Your task to perform on an android device: change notification settings in the gmail app Image 0: 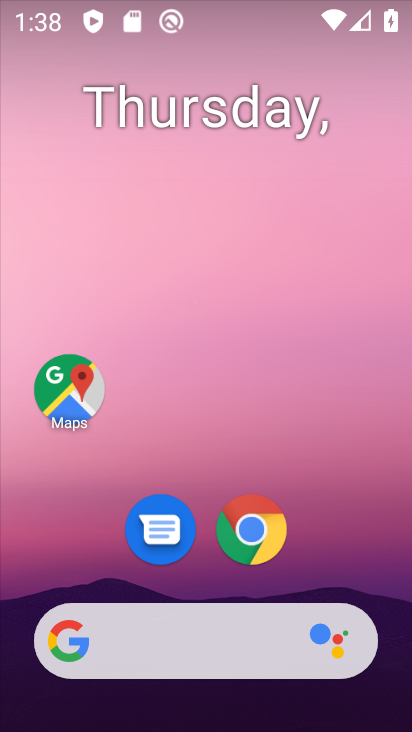
Step 0: drag from (200, 723) to (213, 126)
Your task to perform on an android device: change notification settings in the gmail app Image 1: 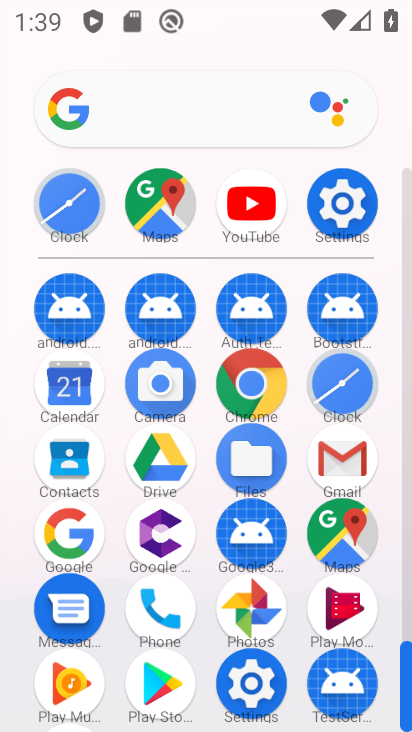
Step 1: click (338, 457)
Your task to perform on an android device: change notification settings in the gmail app Image 2: 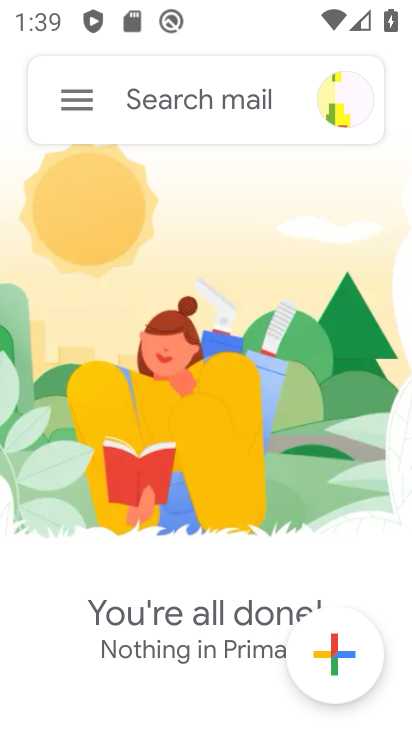
Step 2: click (82, 95)
Your task to perform on an android device: change notification settings in the gmail app Image 3: 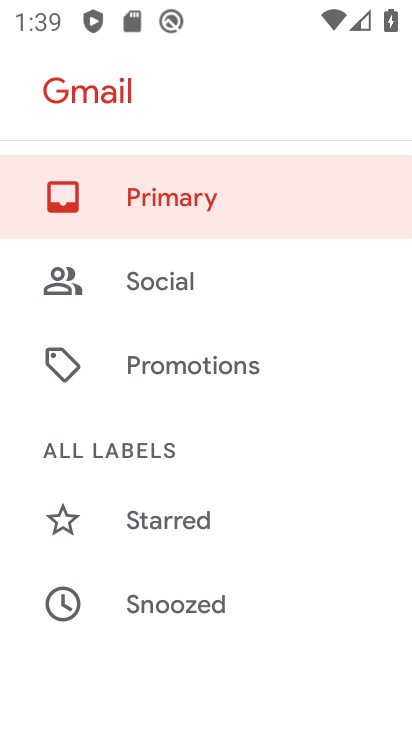
Step 3: drag from (175, 649) to (186, 194)
Your task to perform on an android device: change notification settings in the gmail app Image 4: 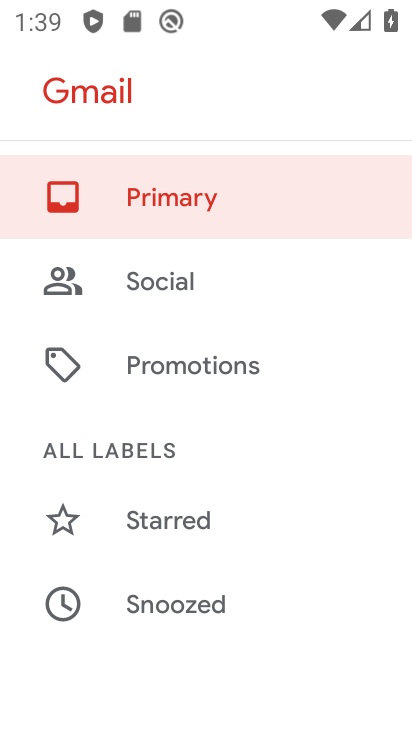
Step 4: drag from (182, 537) to (170, 228)
Your task to perform on an android device: change notification settings in the gmail app Image 5: 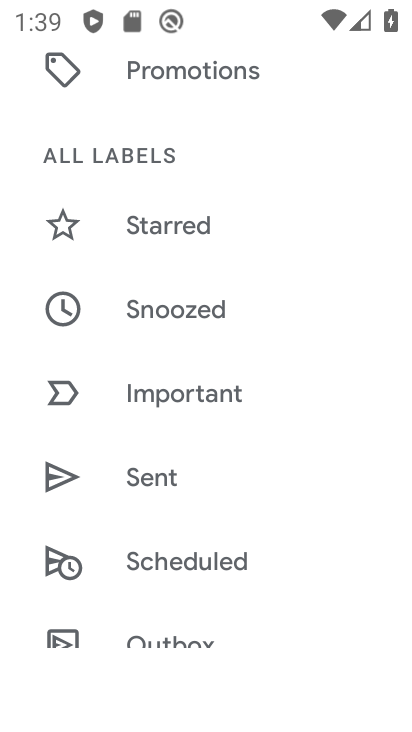
Step 5: drag from (187, 554) to (184, 218)
Your task to perform on an android device: change notification settings in the gmail app Image 6: 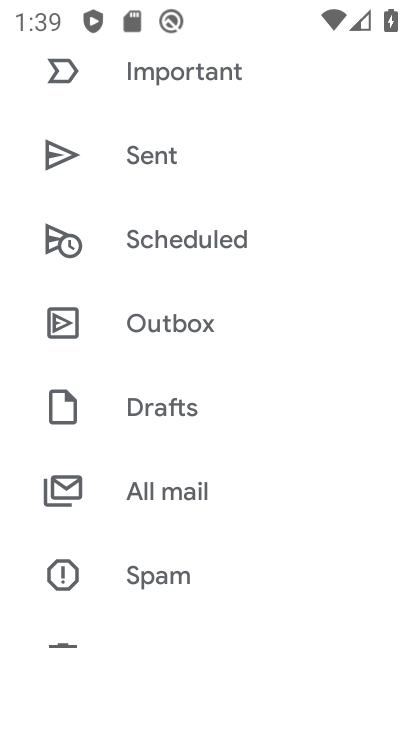
Step 6: drag from (197, 617) to (186, 192)
Your task to perform on an android device: change notification settings in the gmail app Image 7: 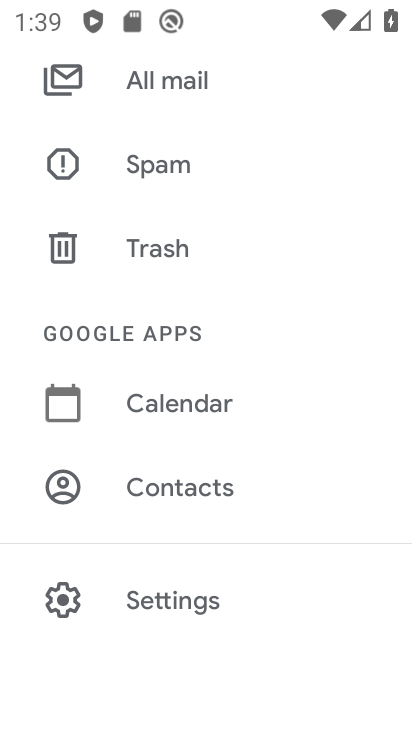
Step 7: click (192, 601)
Your task to perform on an android device: change notification settings in the gmail app Image 8: 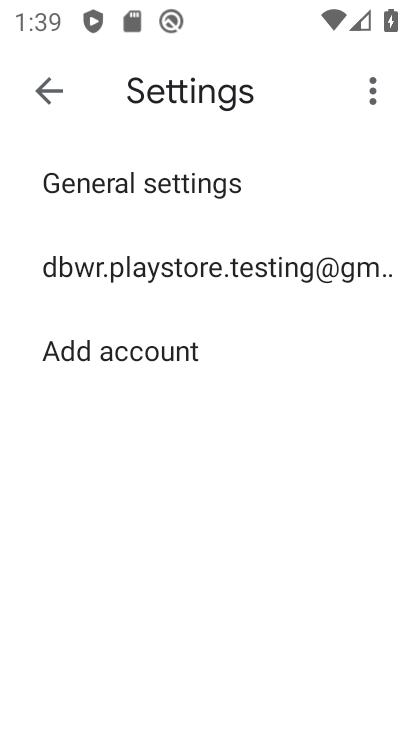
Step 8: click (261, 272)
Your task to perform on an android device: change notification settings in the gmail app Image 9: 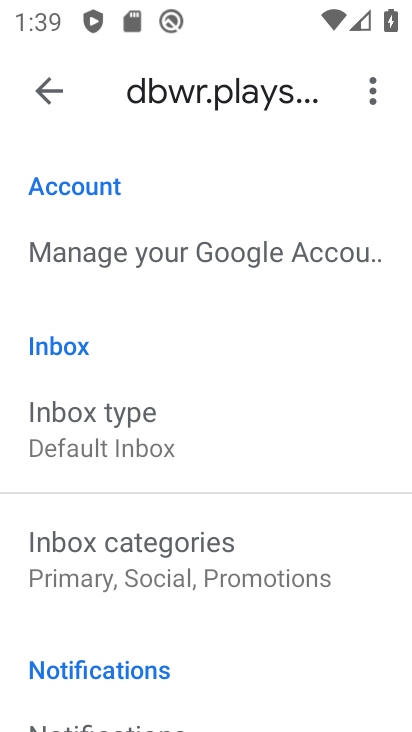
Step 9: drag from (137, 647) to (137, 340)
Your task to perform on an android device: change notification settings in the gmail app Image 10: 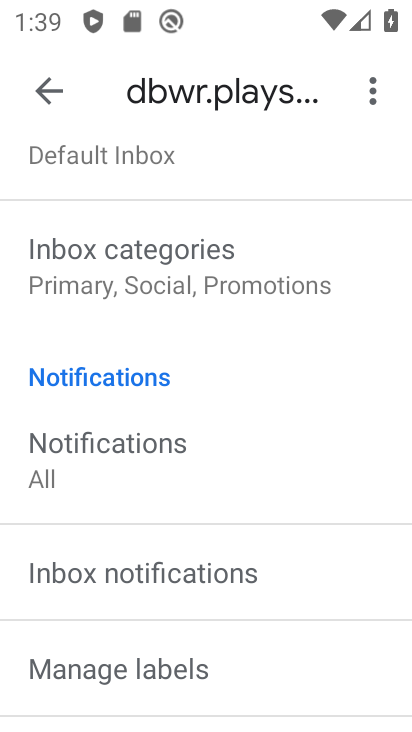
Step 10: click (144, 447)
Your task to perform on an android device: change notification settings in the gmail app Image 11: 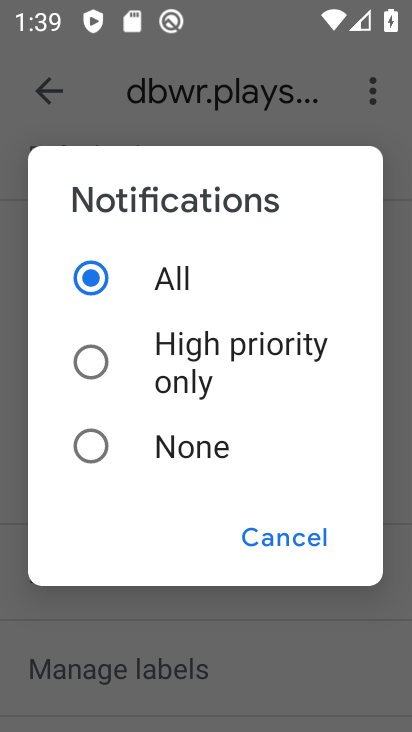
Step 11: click (99, 365)
Your task to perform on an android device: change notification settings in the gmail app Image 12: 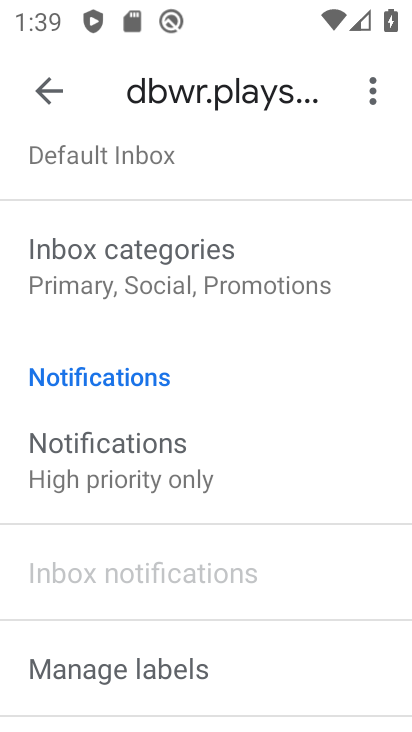
Step 12: task complete